Your task to perform on an android device: turn pop-ups off in chrome Image 0: 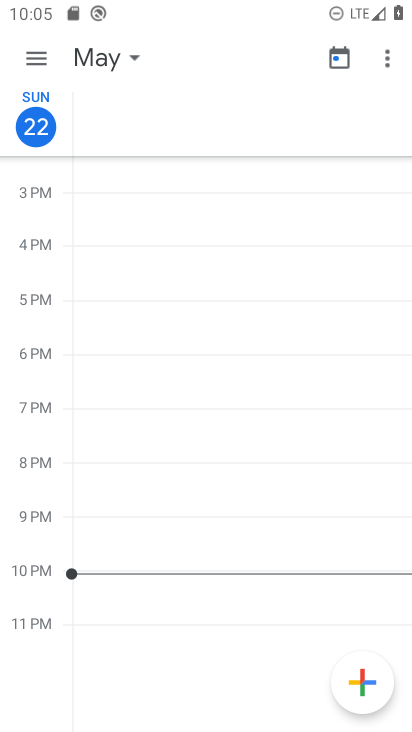
Step 0: press home button
Your task to perform on an android device: turn pop-ups off in chrome Image 1: 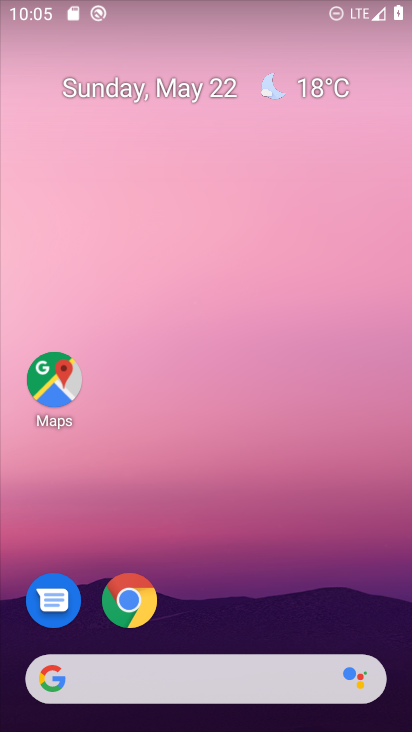
Step 1: drag from (393, 626) to (279, 45)
Your task to perform on an android device: turn pop-ups off in chrome Image 2: 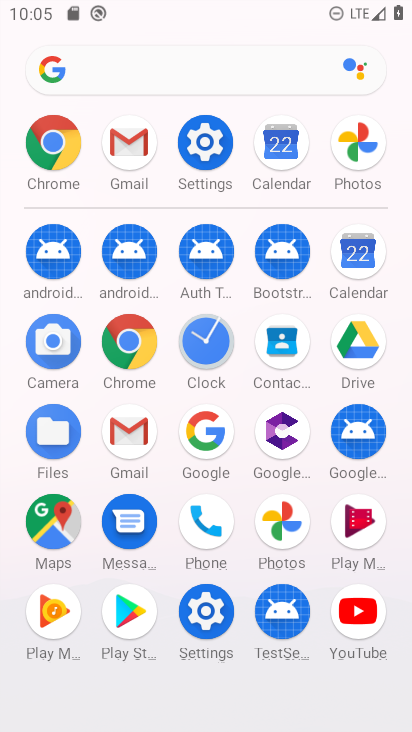
Step 2: click (128, 349)
Your task to perform on an android device: turn pop-ups off in chrome Image 3: 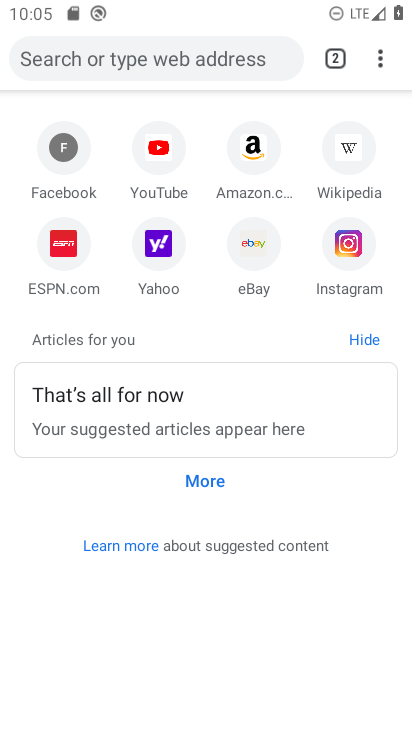
Step 3: click (380, 52)
Your task to perform on an android device: turn pop-ups off in chrome Image 4: 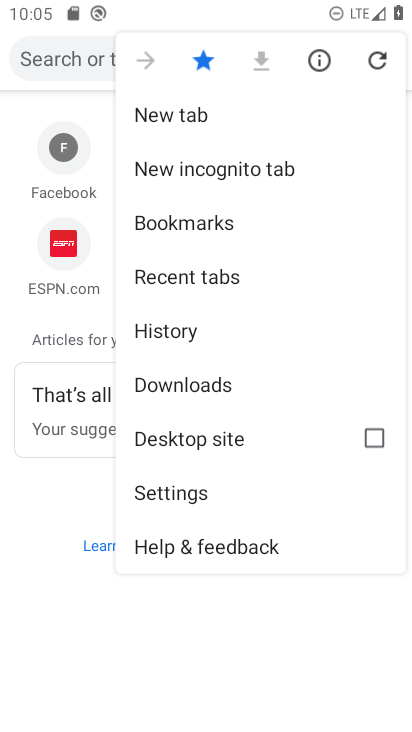
Step 4: click (217, 507)
Your task to perform on an android device: turn pop-ups off in chrome Image 5: 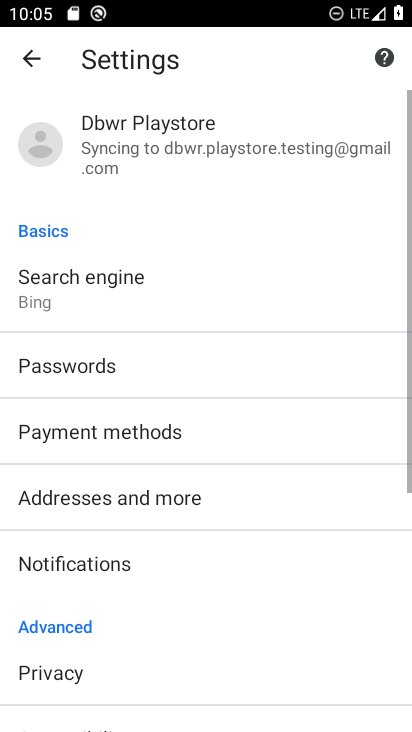
Step 5: drag from (175, 625) to (182, 191)
Your task to perform on an android device: turn pop-ups off in chrome Image 6: 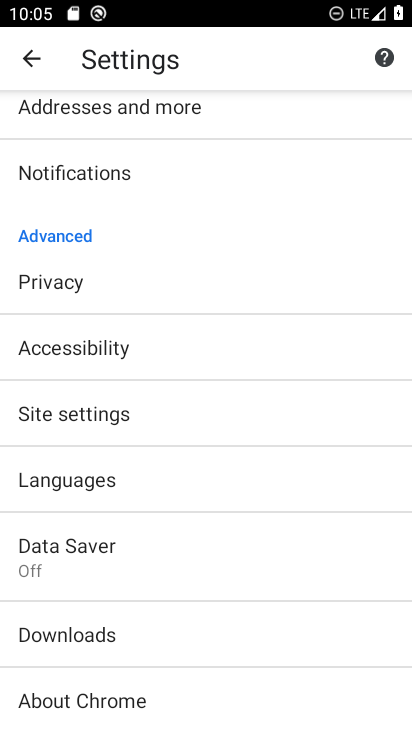
Step 6: click (150, 422)
Your task to perform on an android device: turn pop-ups off in chrome Image 7: 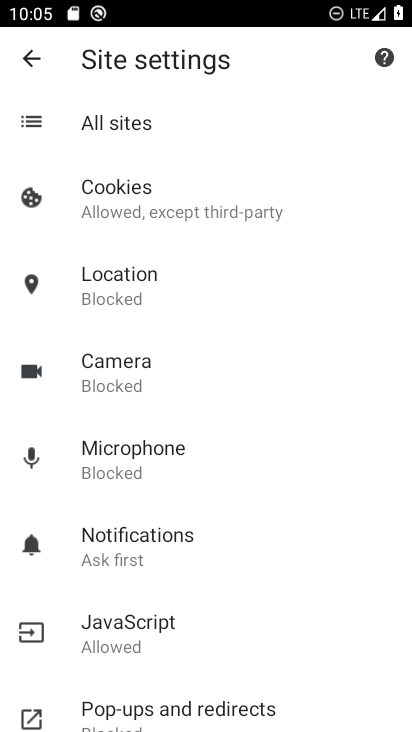
Step 7: click (190, 714)
Your task to perform on an android device: turn pop-ups off in chrome Image 8: 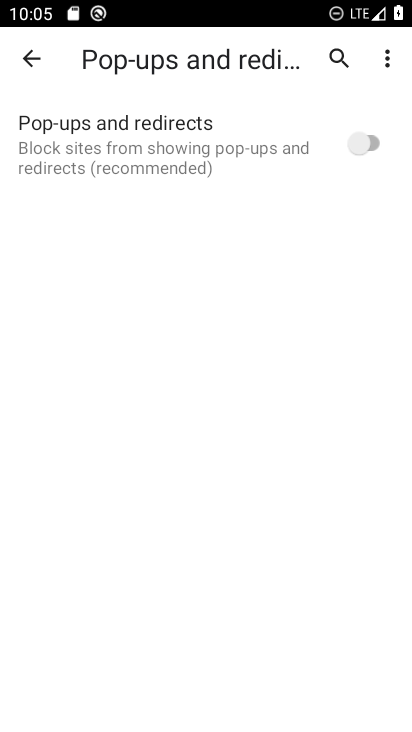
Step 8: task complete